Your task to perform on an android device: delete browsing data in the chrome app Image 0: 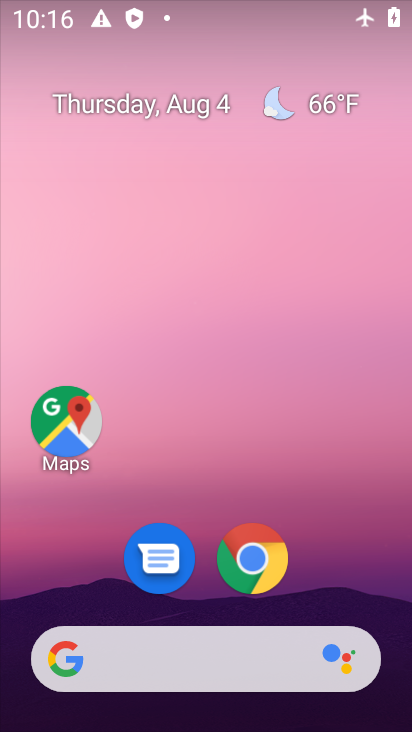
Step 0: drag from (337, 588) to (241, 181)
Your task to perform on an android device: delete browsing data in the chrome app Image 1: 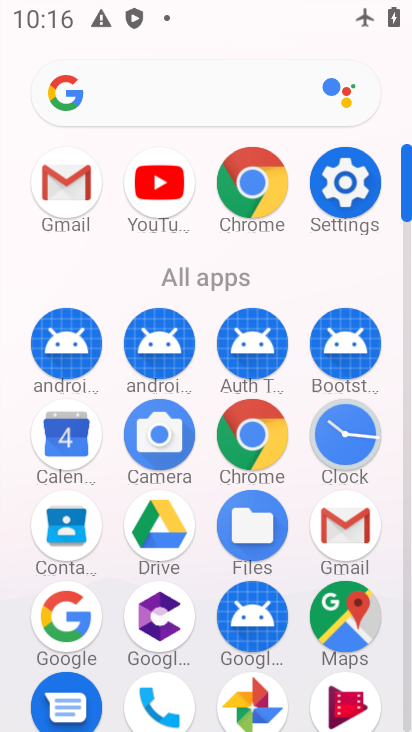
Step 1: click (250, 430)
Your task to perform on an android device: delete browsing data in the chrome app Image 2: 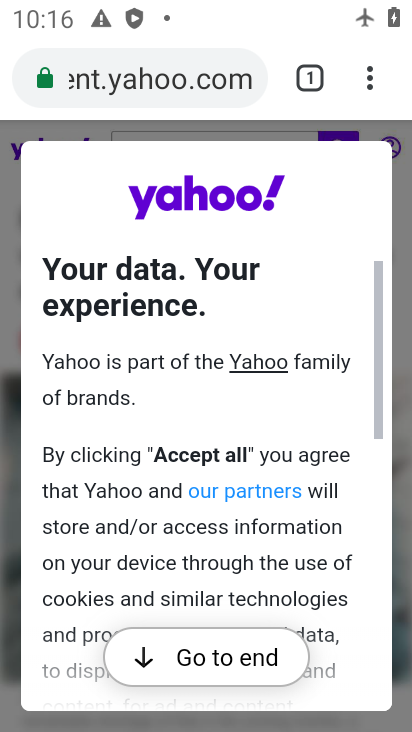
Step 2: drag from (372, 78) to (196, 431)
Your task to perform on an android device: delete browsing data in the chrome app Image 3: 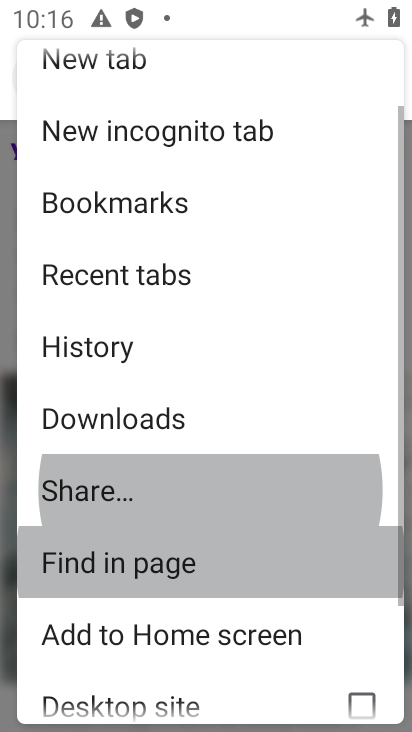
Step 3: drag from (195, 383) to (205, 327)
Your task to perform on an android device: delete browsing data in the chrome app Image 4: 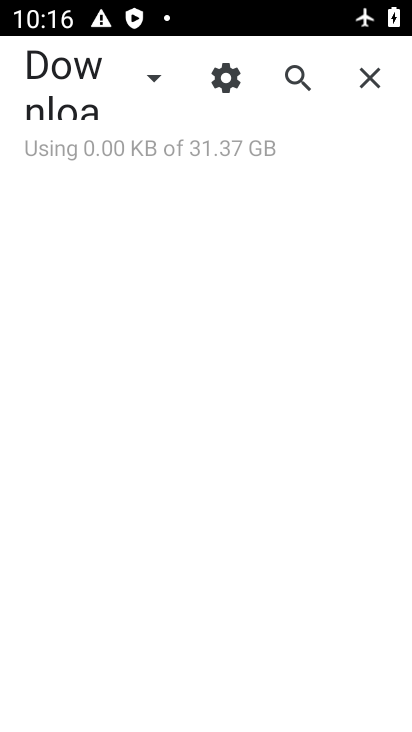
Step 4: click (374, 63)
Your task to perform on an android device: delete browsing data in the chrome app Image 5: 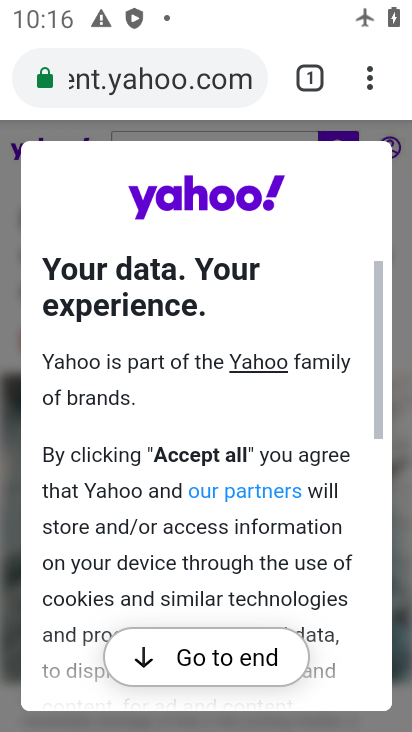
Step 5: drag from (374, 85) to (86, 423)
Your task to perform on an android device: delete browsing data in the chrome app Image 6: 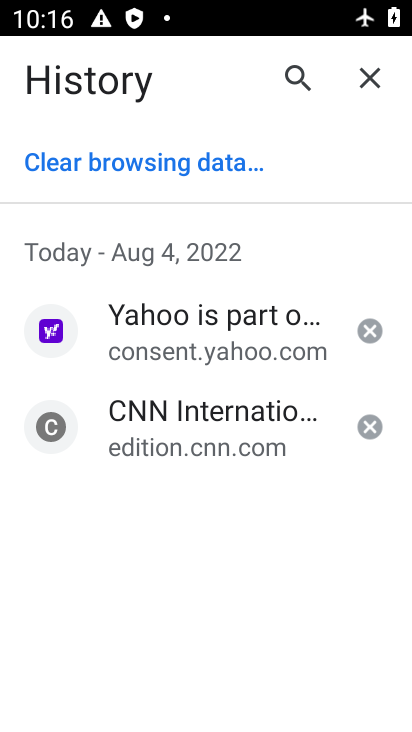
Step 6: click (117, 168)
Your task to perform on an android device: delete browsing data in the chrome app Image 7: 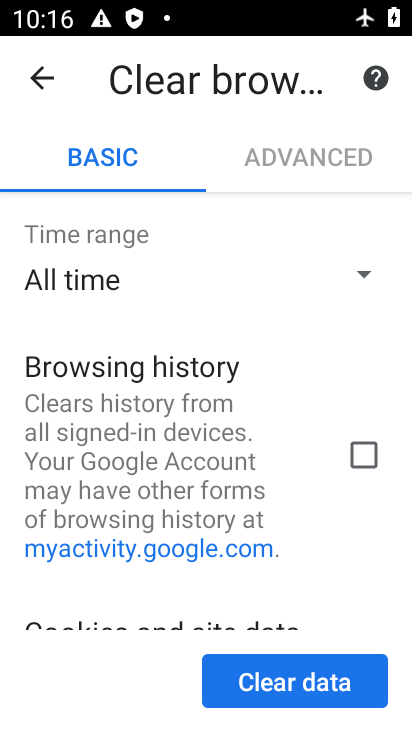
Step 7: drag from (215, 537) to (265, 443)
Your task to perform on an android device: delete browsing data in the chrome app Image 8: 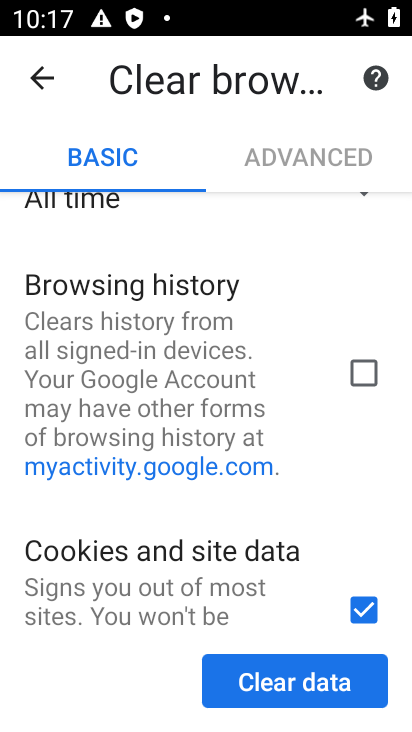
Step 8: click (363, 378)
Your task to perform on an android device: delete browsing data in the chrome app Image 9: 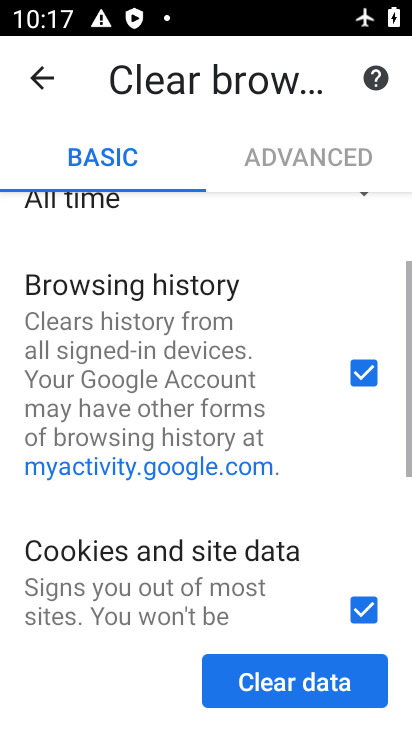
Step 9: drag from (154, 407) to (252, 168)
Your task to perform on an android device: delete browsing data in the chrome app Image 10: 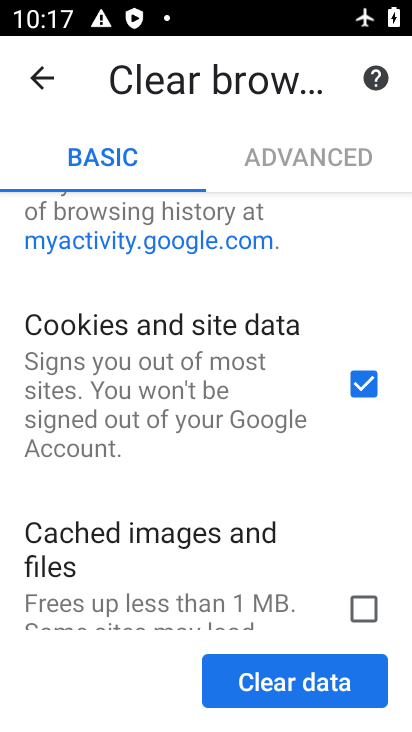
Step 10: click (364, 615)
Your task to perform on an android device: delete browsing data in the chrome app Image 11: 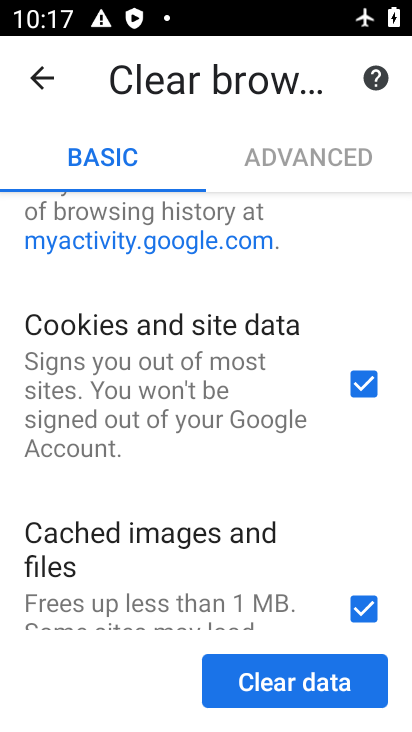
Step 11: drag from (149, 609) to (204, 340)
Your task to perform on an android device: delete browsing data in the chrome app Image 12: 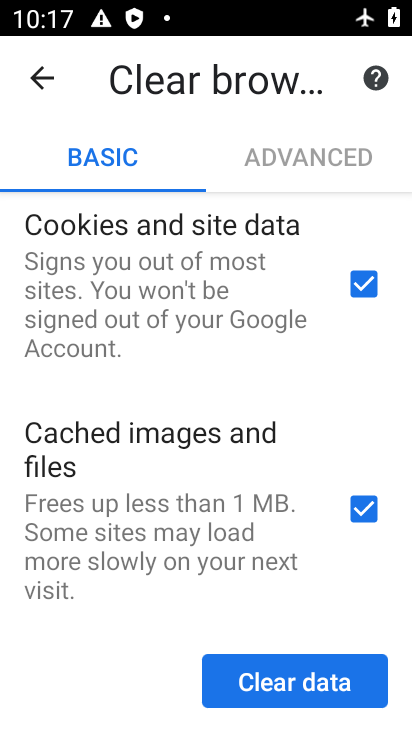
Step 12: click (290, 675)
Your task to perform on an android device: delete browsing data in the chrome app Image 13: 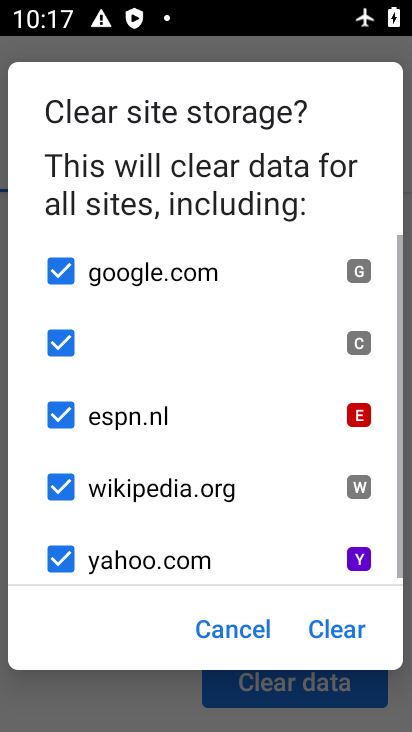
Step 13: click (332, 632)
Your task to perform on an android device: delete browsing data in the chrome app Image 14: 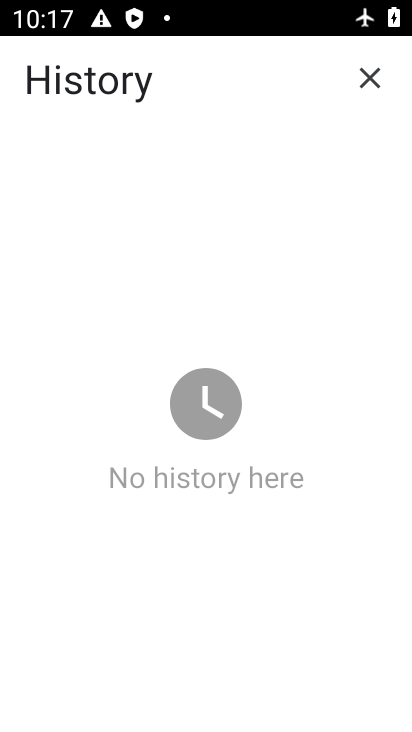
Step 14: task complete